Your task to perform on an android device: open a new tab in the chrome app Image 0: 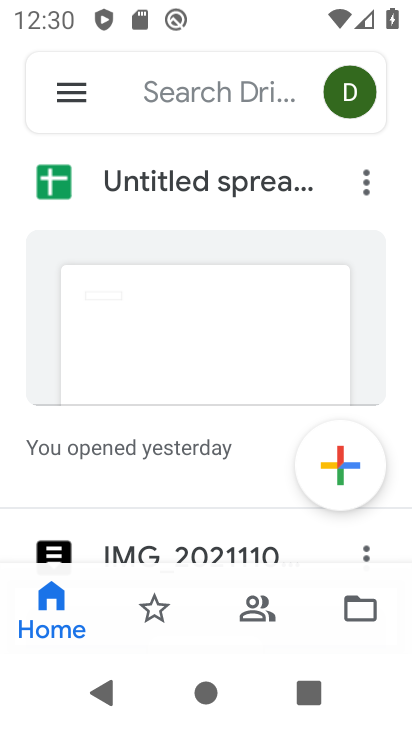
Step 0: press home button
Your task to perform on an android device: open a new tab in the chrome app Image 1: 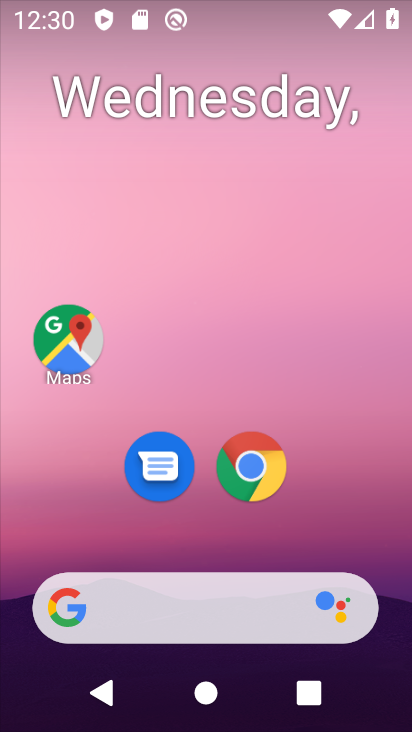
Step 1: click (250, 466)
Your task to perform on an android device: open a new tab in the chrome app Image 2: 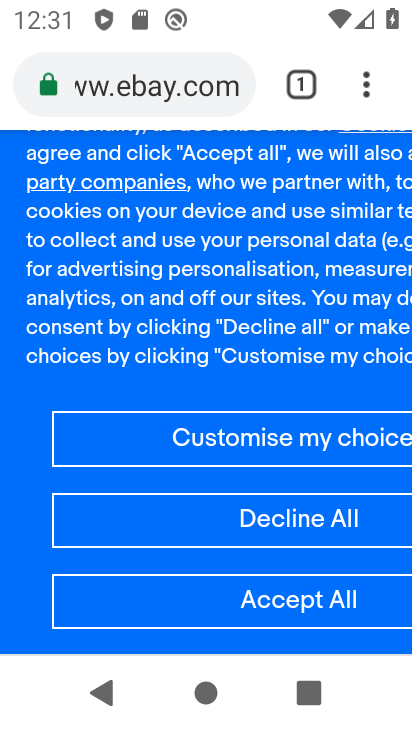
Step 2: click (367, 84)
Your task to perform on an android device: open a new tab in the chrome app Image 3: 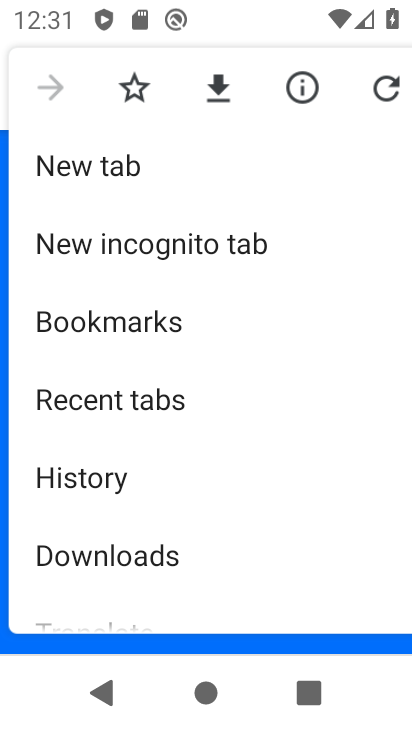
Step 3: click (120, 170)
Your task to perform on an android device: open a new tab in the chrome app Image 4: 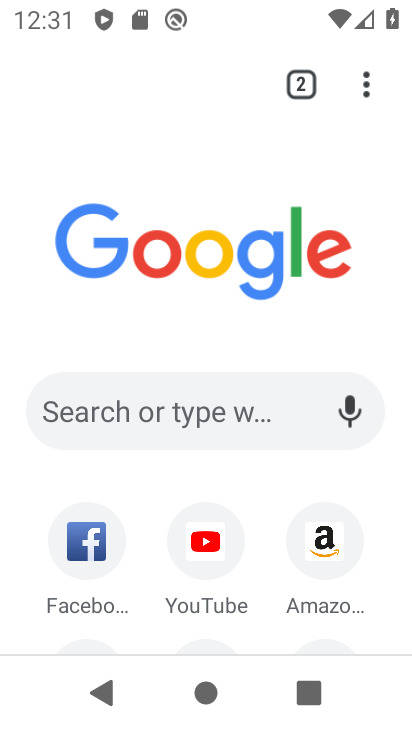
Step 4: task complete